Your task to perform on an android device: open app "Walmart Shopping & Grocery" (install if not already installed), go to login, and select forgot password Image 0: 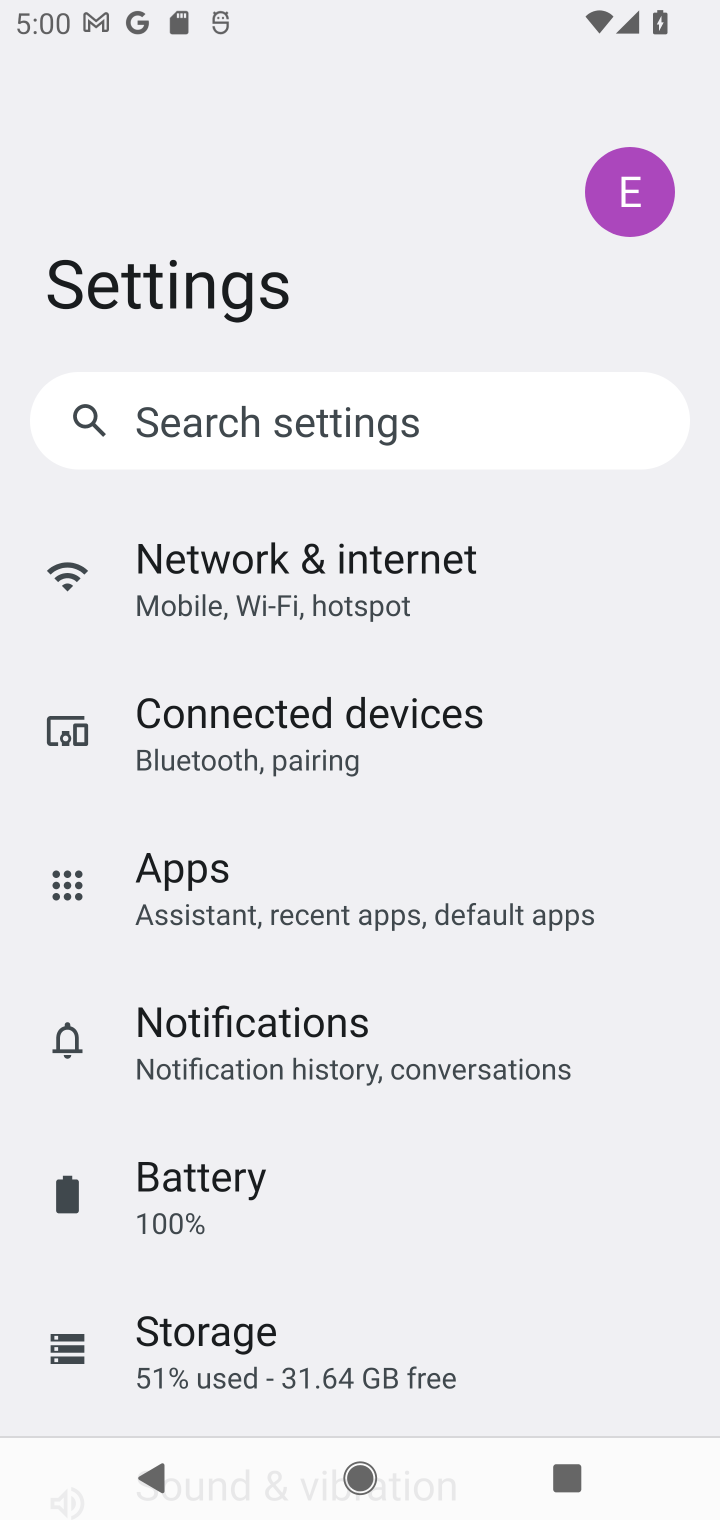
Step 0: press home button
Your task to perform on an android device: open app "Walmart Shopping & Grocery" (install if not already installed), go to login, and select forgot password Image 1: 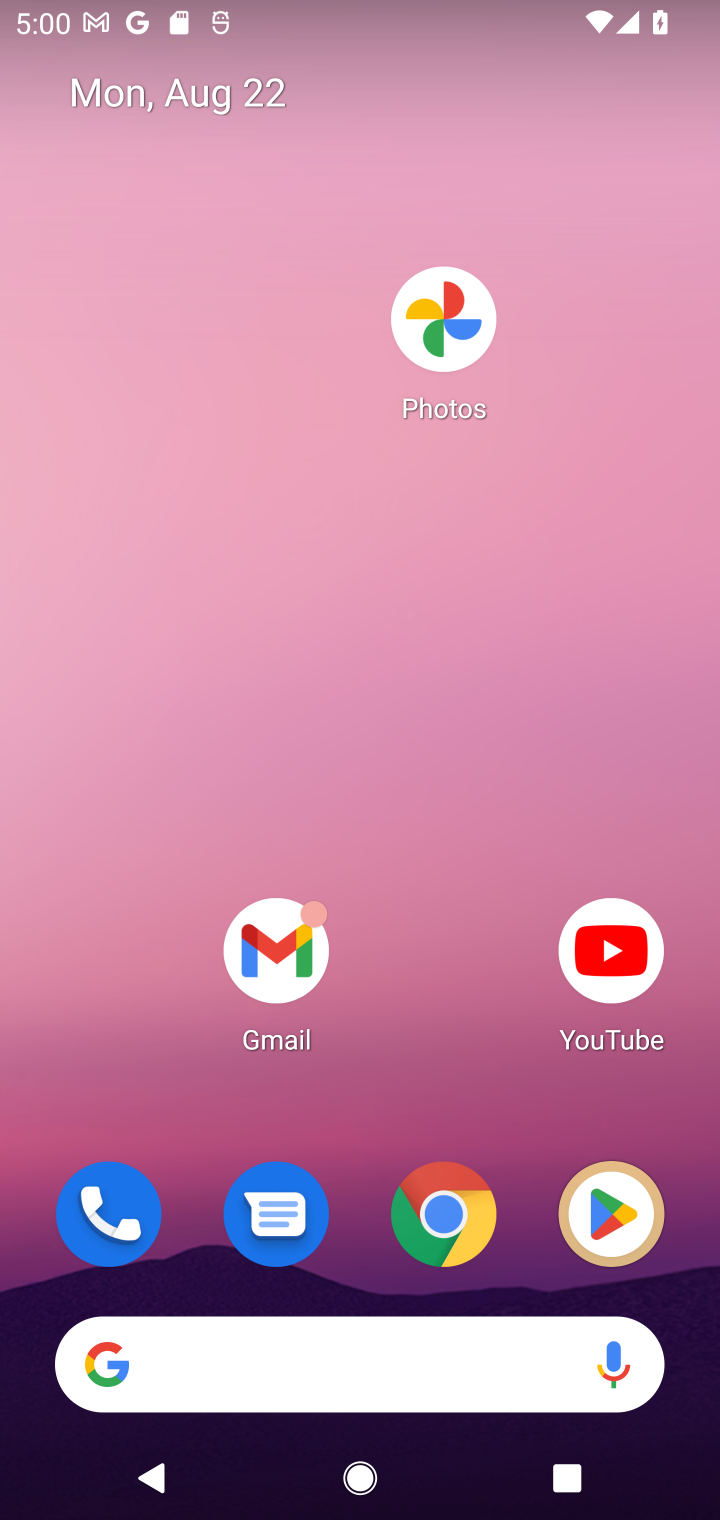
Step 1: click (612, 1209)
Your task to perform on an android device: open app "Walmart Shopping & Grocery" (install if not already installed), go to login, and select forgot password Image 2: 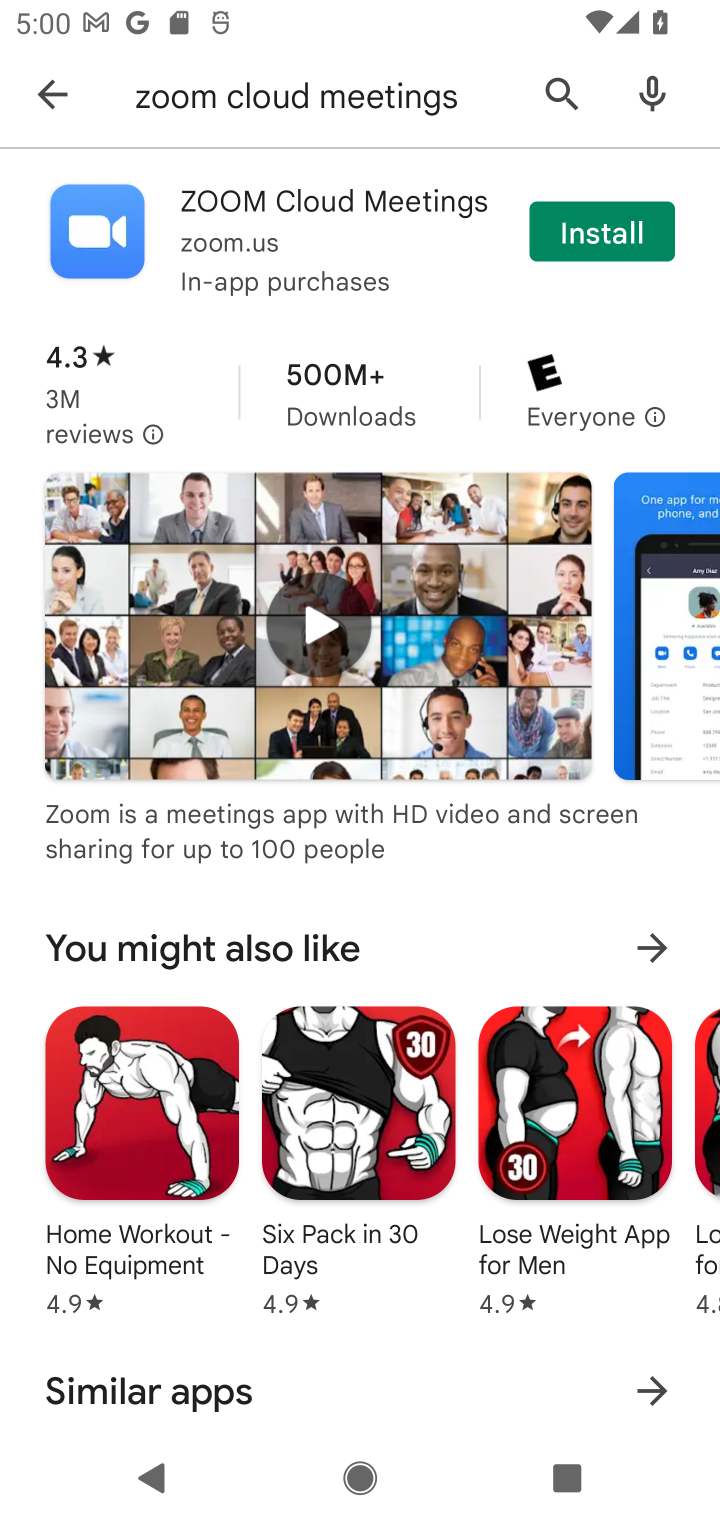
Step 2: click (534, 91)
Your task to perform on an android device: open app "Walmart Shopping & Grocery" (install if not already installed), go to login, and select forgot password Image 3: 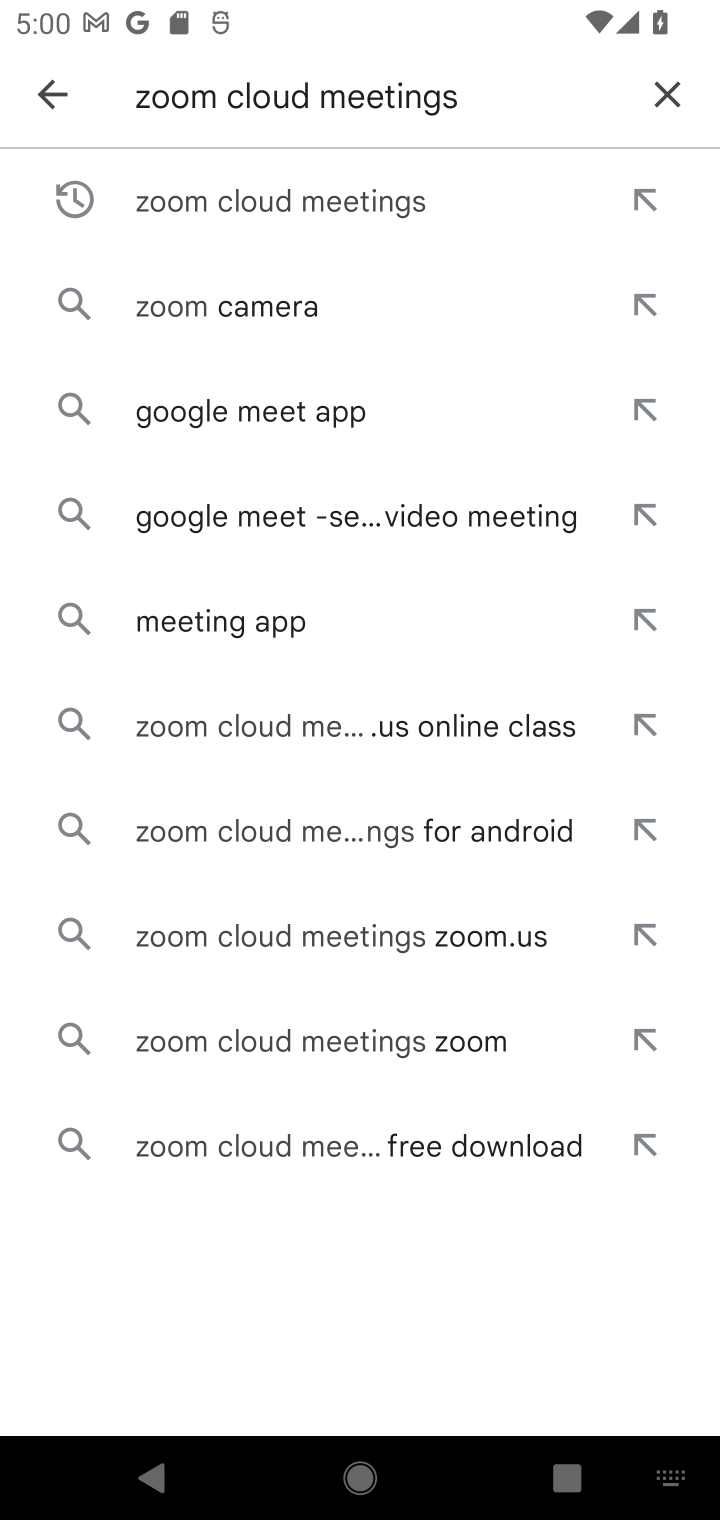
Step 3: click (666, 95)
Your task to perform on an android device: open app "Walmart Shopping & Grocery" (install if not already installed), go to login, and select forgot password Image 4: 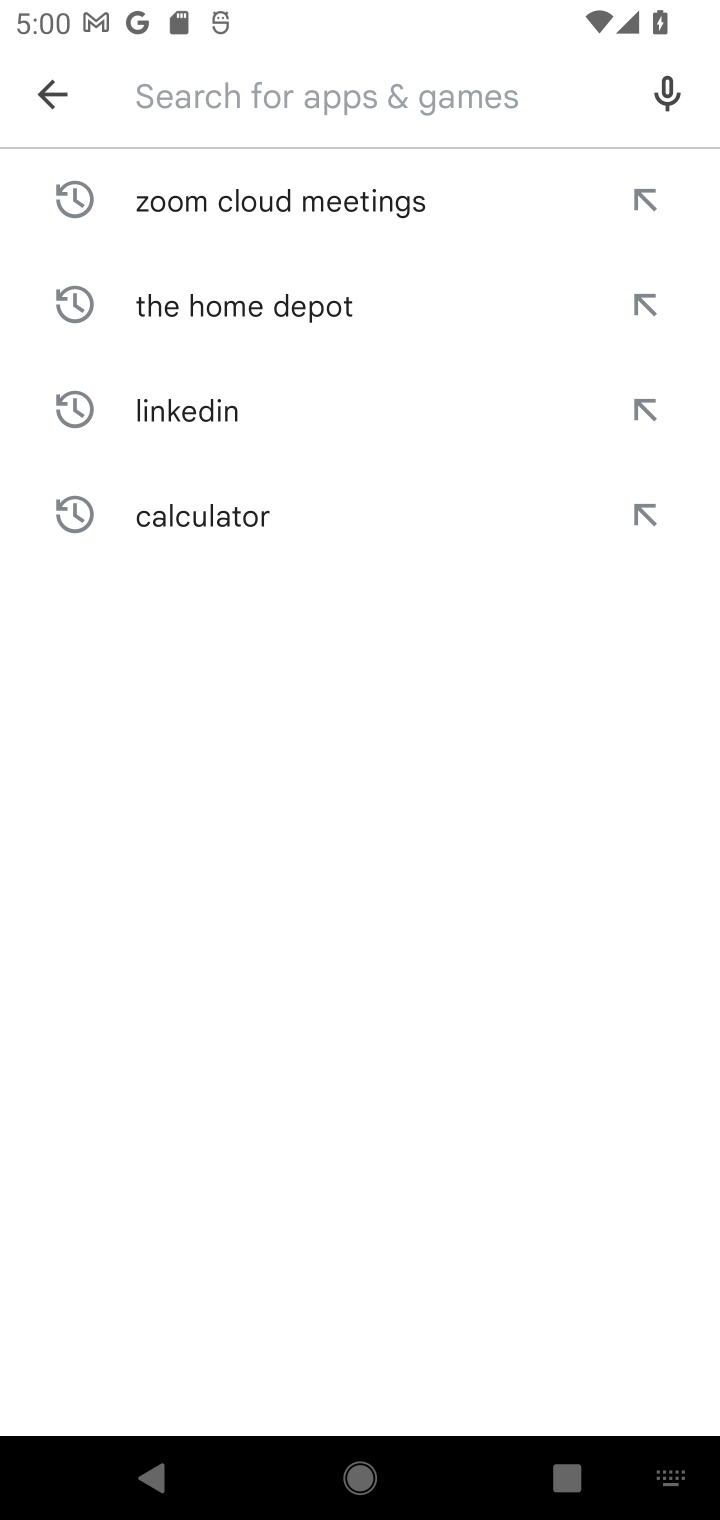
Step 4: type "Walmart Shopping & Grocery"
Your task to perform on an android device: open app "Walmart Shopping & Grocery" (install if not already installed), go to login, and select forgot password Image 5: 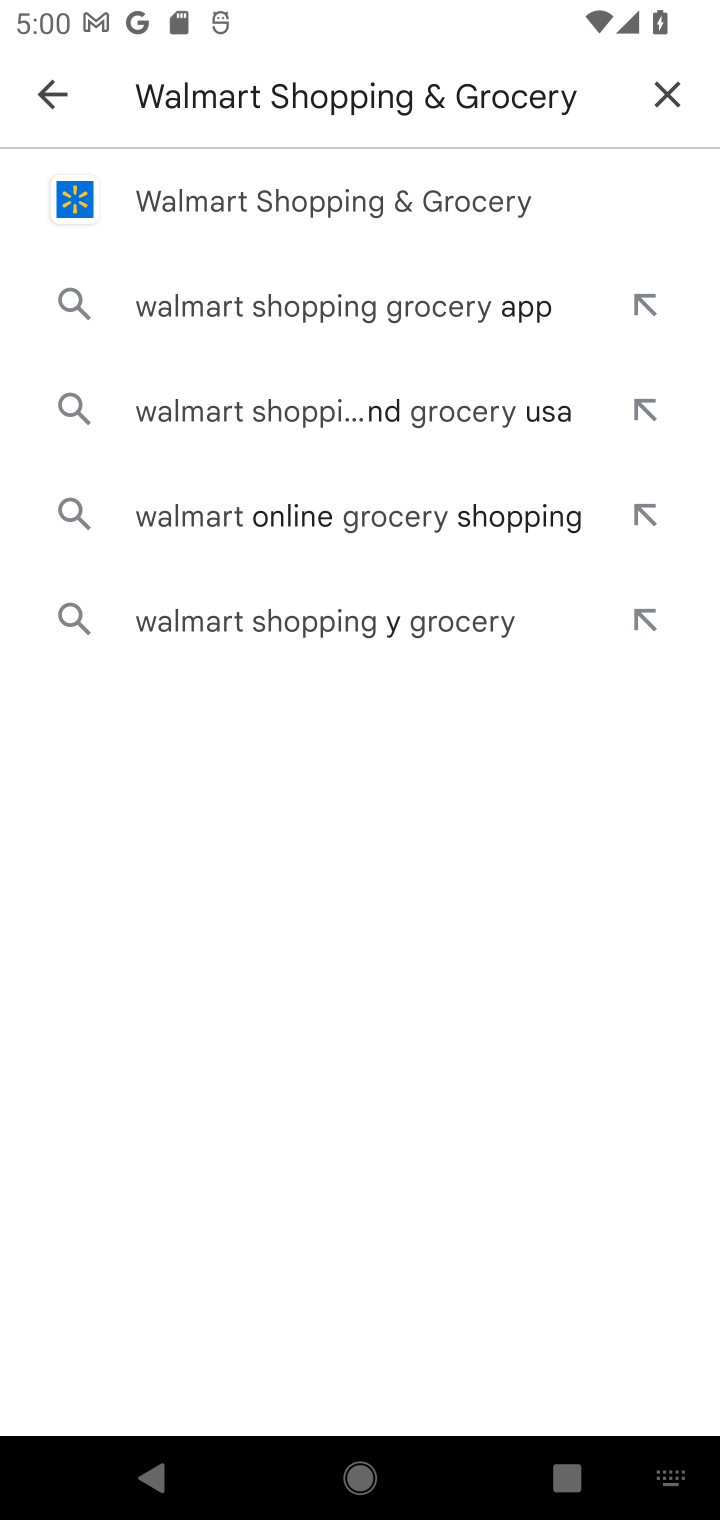
Step 5: click (245, 207)
Your task to perform on an android device: open app "Walmart Shopping & Grocery" (install if not already installed), go to login, and select forgot password Image 6: 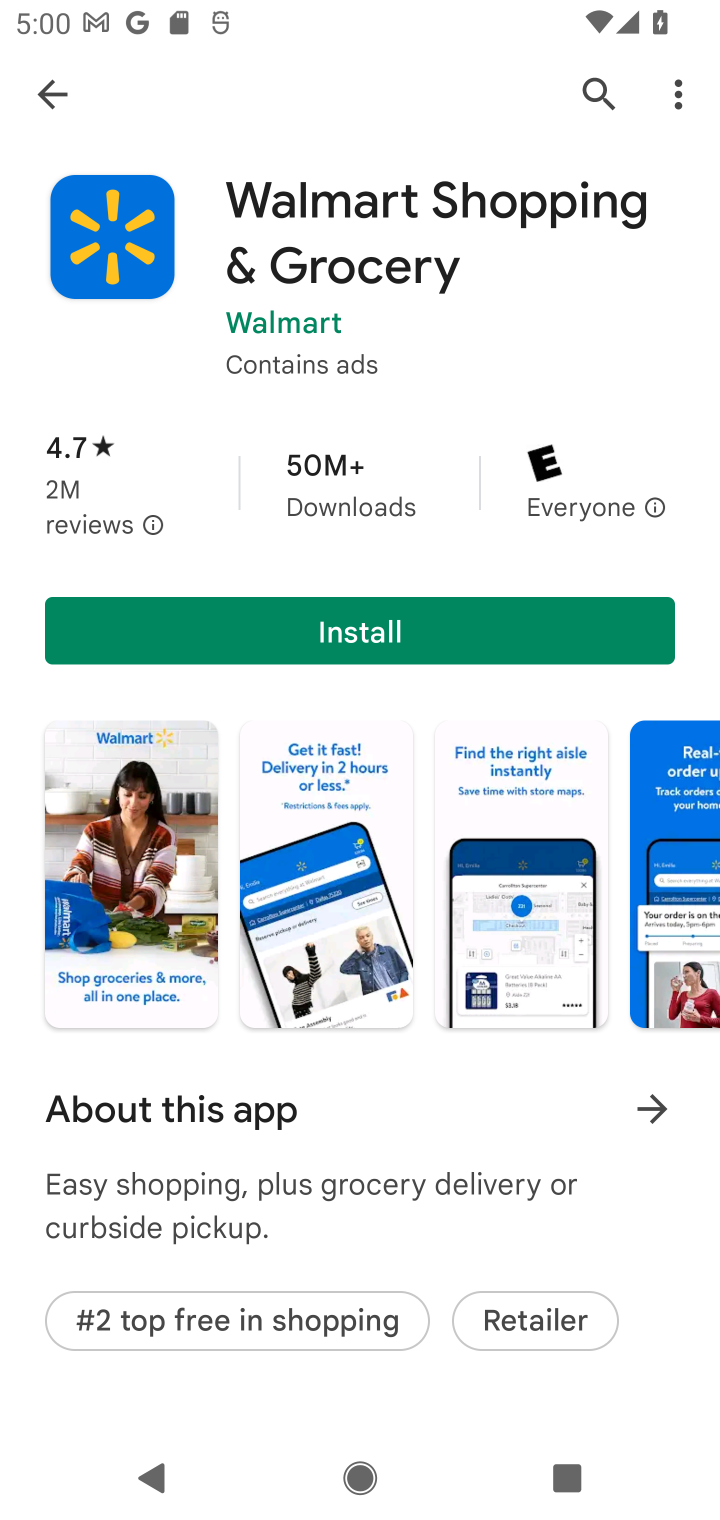
Step 6: click (360, 629)
Your task to perform on an android device: open app "Walmart Shopping & Grocery" (install if not already installed), go to login, and select forgot password Image 7: 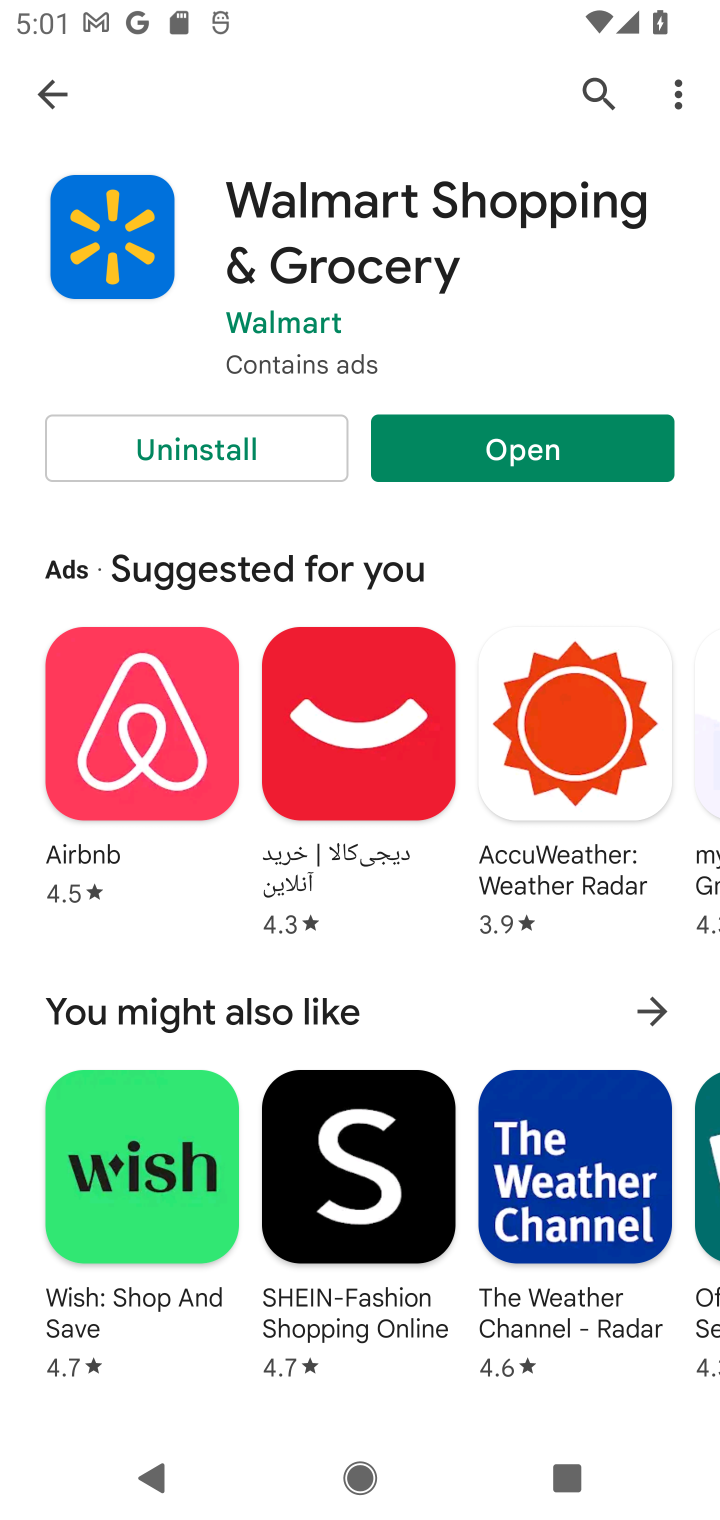
Step 7: click (510, 450)
Your task to perform on an android device: open app "Walmart Shopping & Grocery" (install if not already installed), go to login, and select forgot password Image 8: 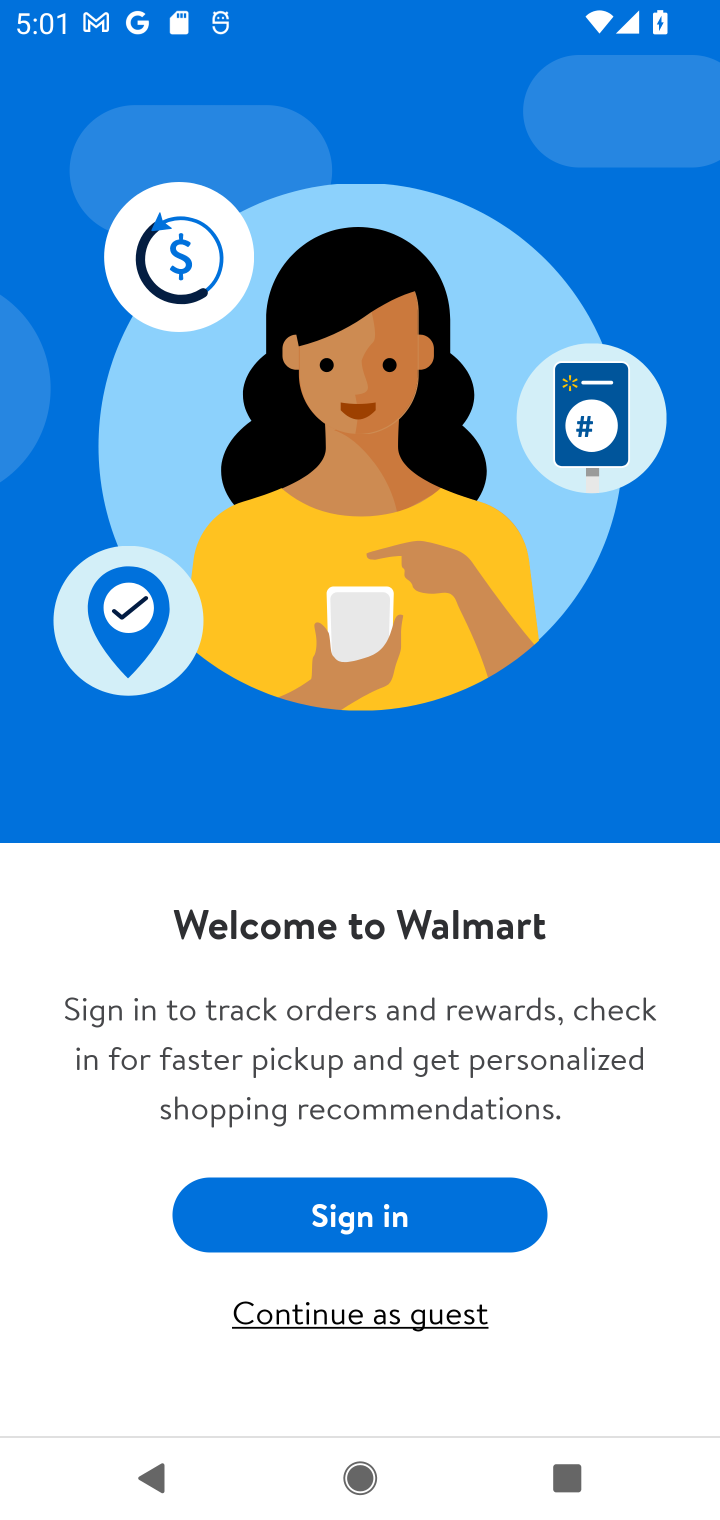
Step 8: click (365, 1219)
Your task to perform on an android device: open app "Walmart Shopping & Grocery" (install if not already installed), go to login, and select forgot password Image 9: 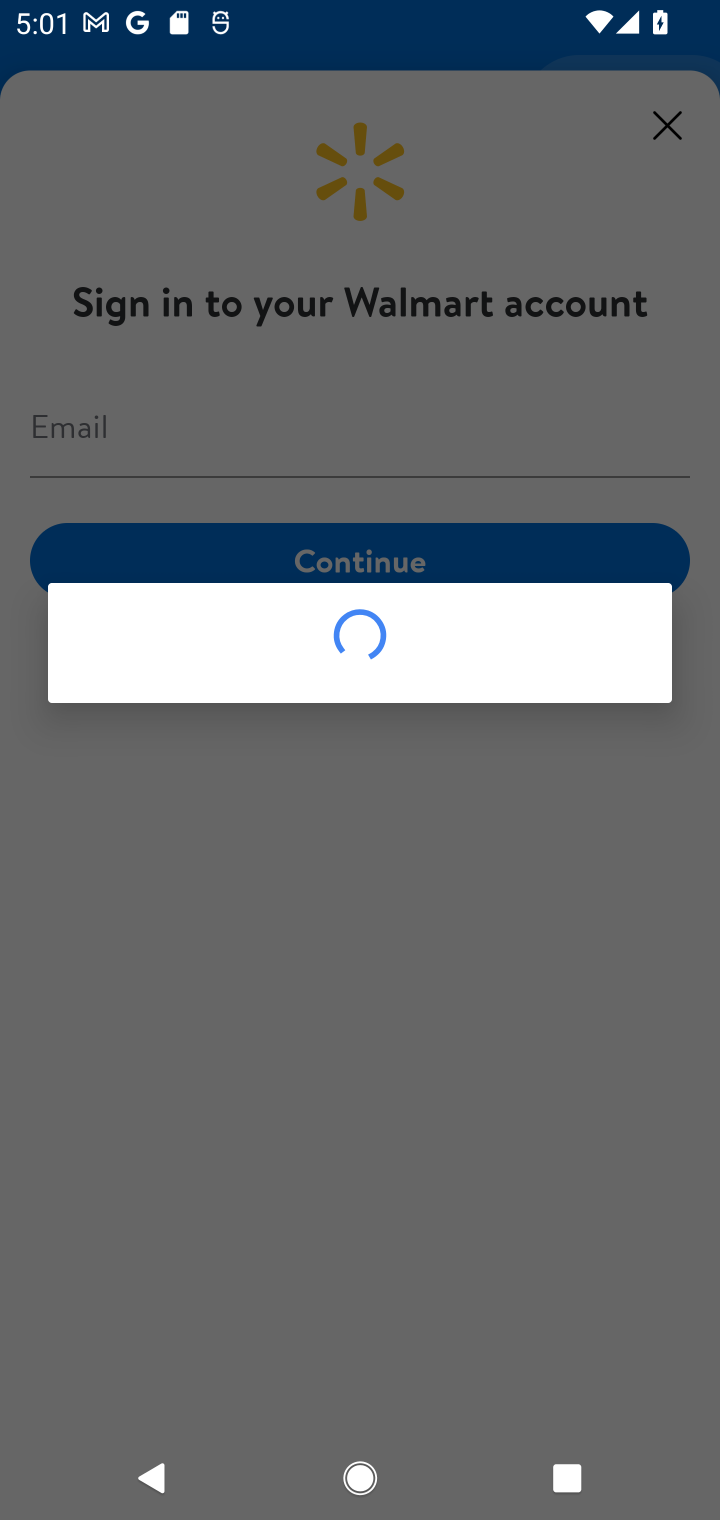
Step 9: click (158, 452)
Your task to perform on an android device: open app "Walmart Shopping & Grocery" (install if not already installed), go to login, and select forgot password Image 10: 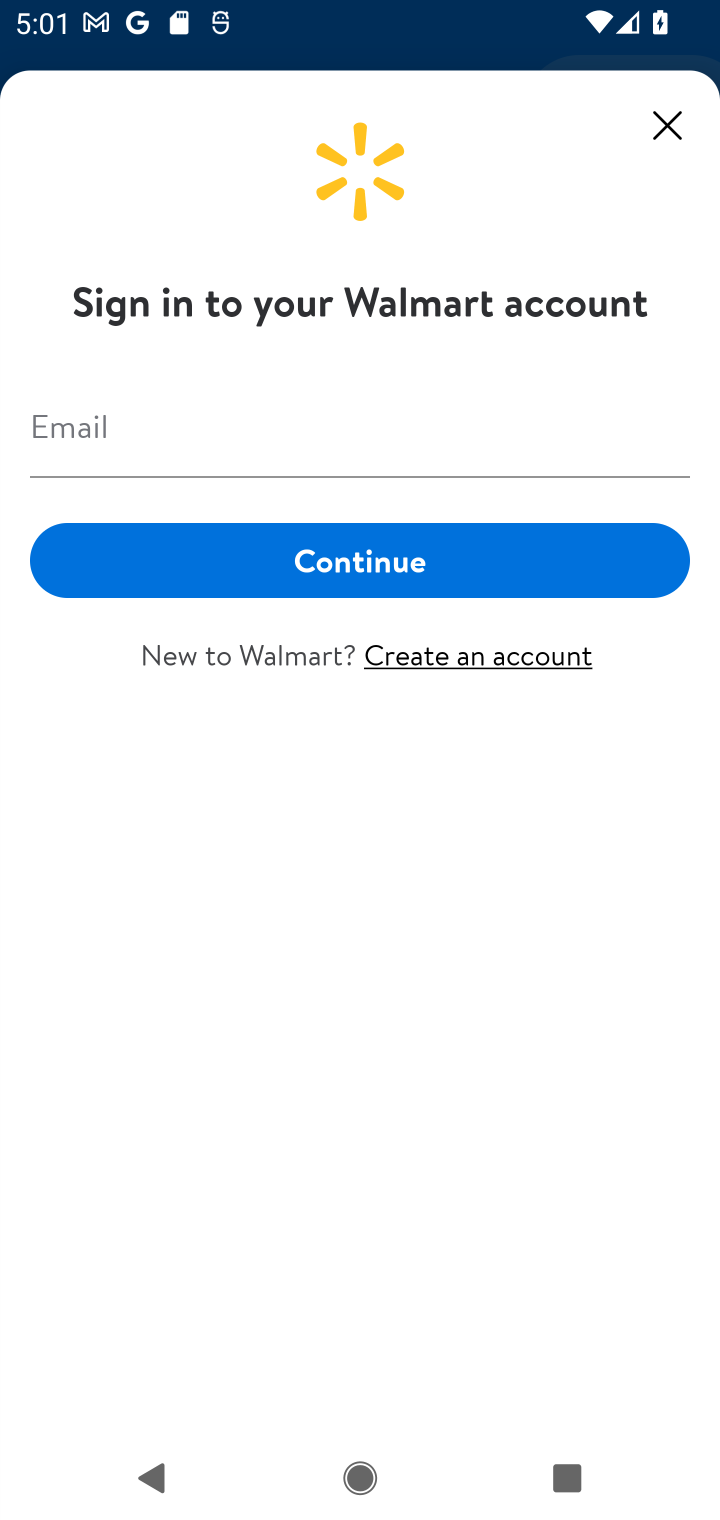
Step 10: click (158, 452)
Your task to perform on an android device: open app "Walmart Shopping & Grocery" (install if not already installed), go to login, and select forgot password Image 11: 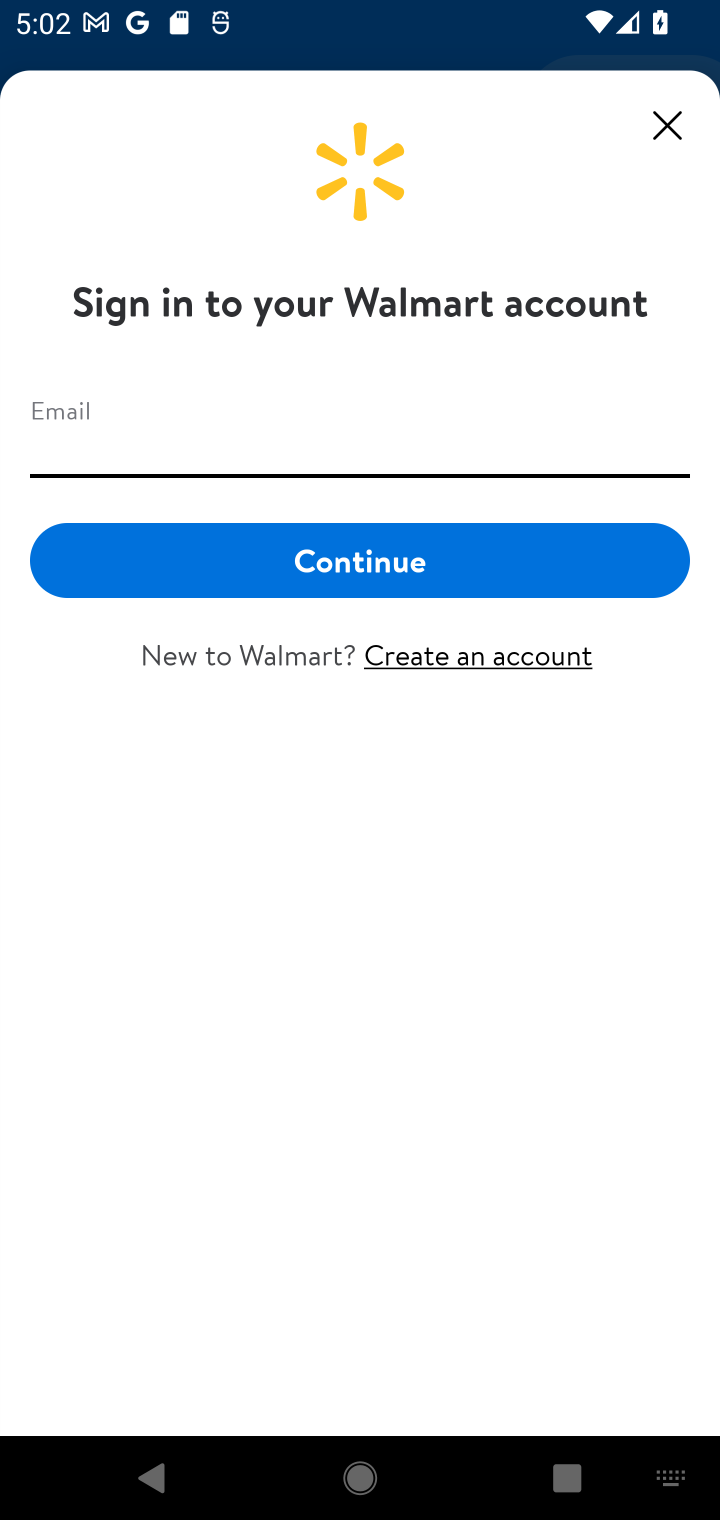
Step 11: click (669, 119)
Your task to perform on an android device: open app "Walmart Shopping & Grocery" (install if not already installed), go to login, and select forgot password Image 12: 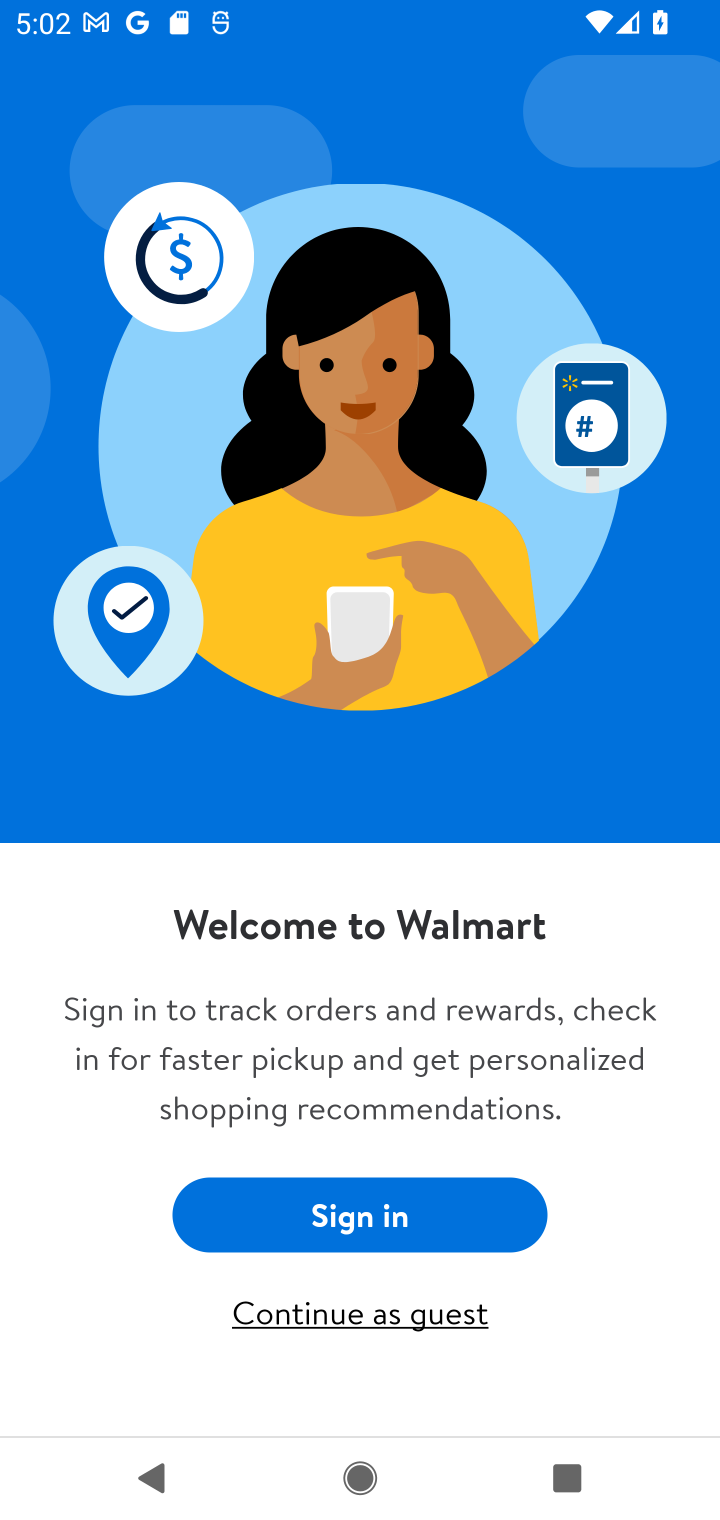
Step 12: task complete